Your task to perform on an android device: Is it going to rain this weekend? Image 0: 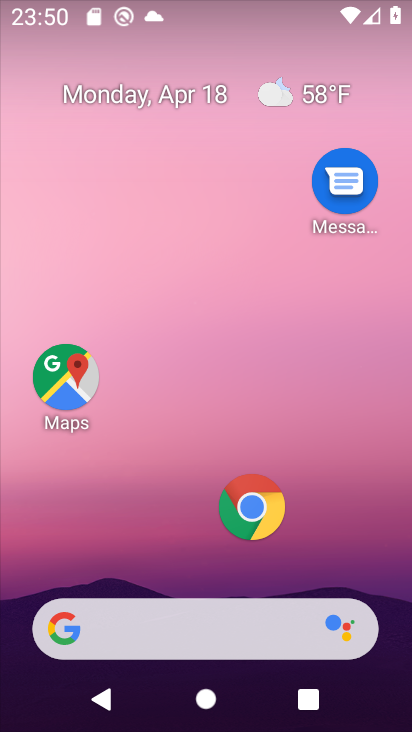
Step 0: click (297, 93)
Your task to perform on an android device: Is it going to rain this weekend? Image 1: 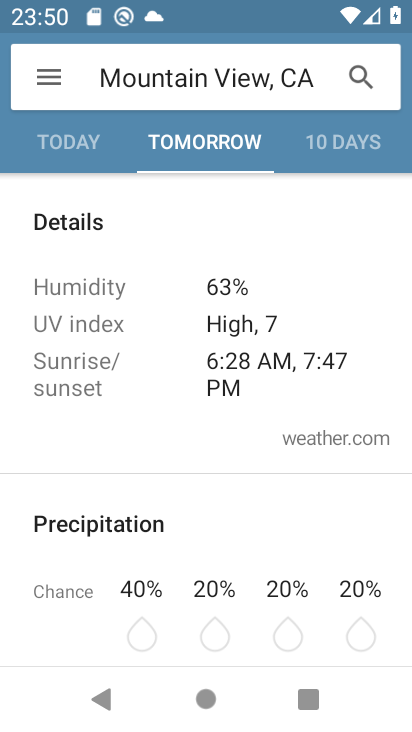
Step 1: click (350, 140)
Your task to perform on an android device: Is it going to rain this weekend? Image 2: 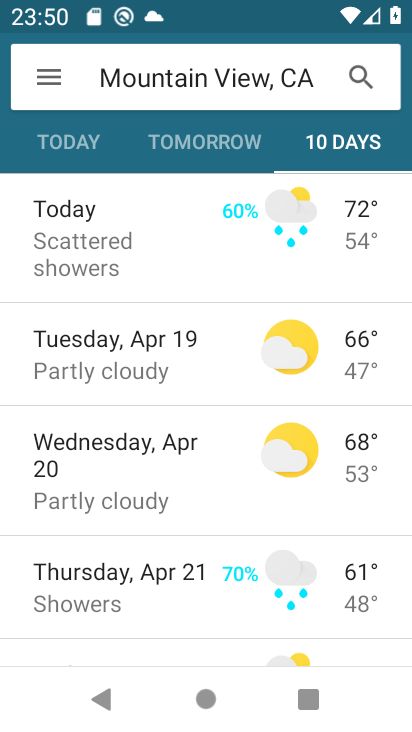
Step 2: task complete